Your task to perform on an android device: change timer sound Image 0: 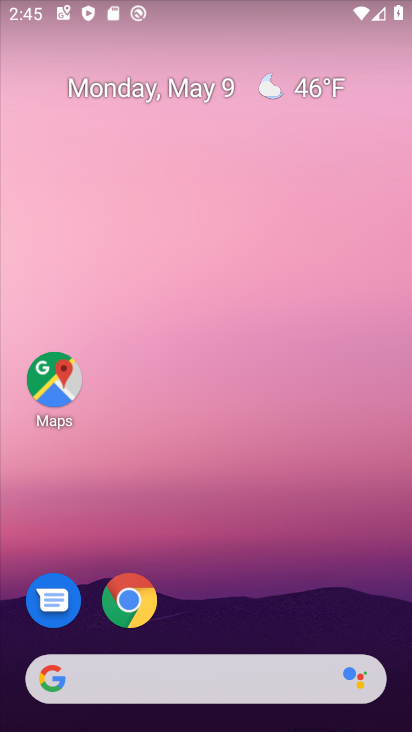
Step 0: drag from (227, 654) to (308, 137)
Your task to perform on an android device: change timer sound Image 1: 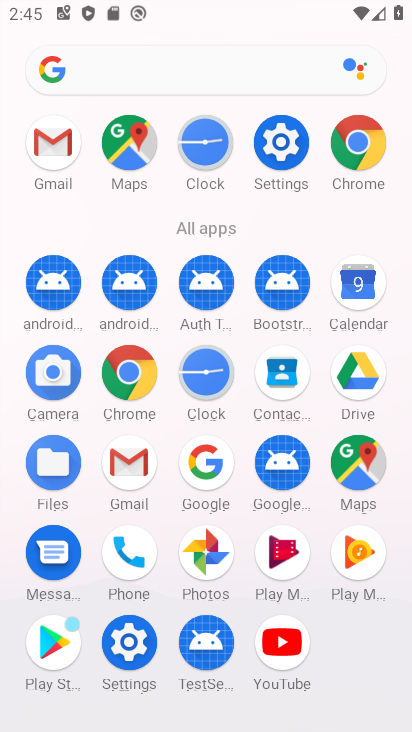
Step 1: click (205, 365)
Your task to perform on an android device: change timer sound Image 2: 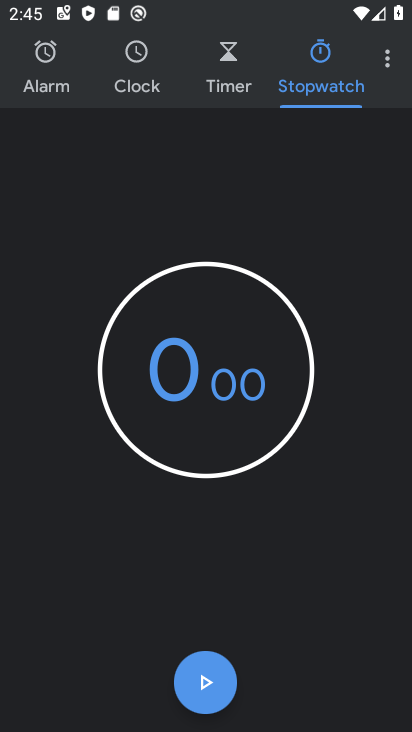
Step 2: click (386, 54)
Your task to perform on an android device: change timer sound Image 3: 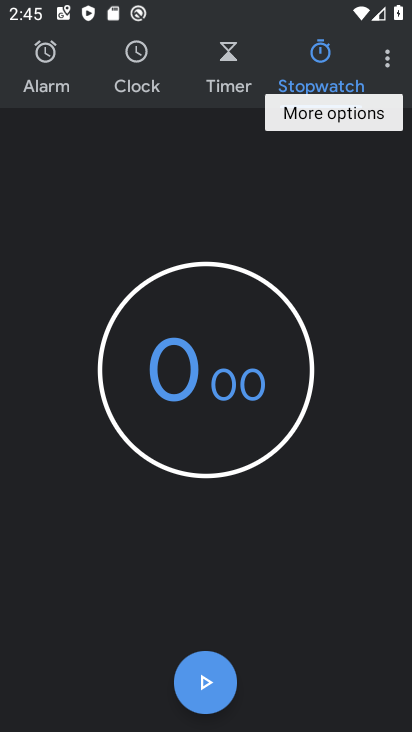
Step 3: click (388, 59)
Your task to perform on an android device: change timer sound Image 4: 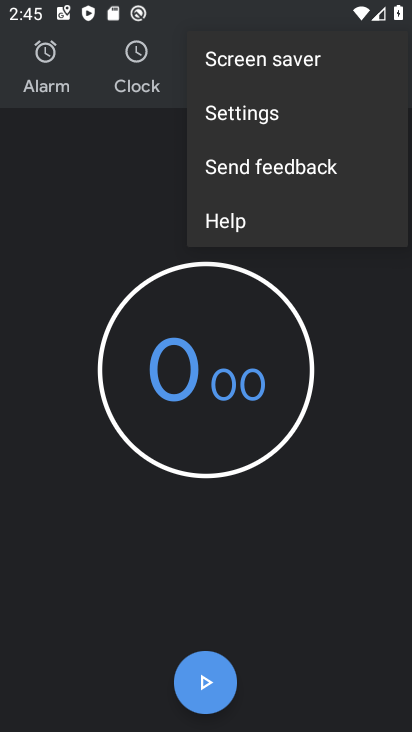
Step 4: click (293, 118)
Your task to perform on an android device: change timer sound Image 5: 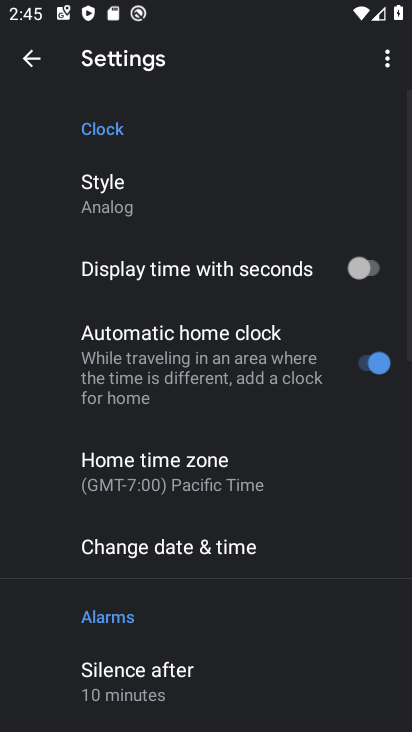
Step 5: drag from (184, 682) to (287, 68)
Your task to perform on an android device: change timer sound Image 6: 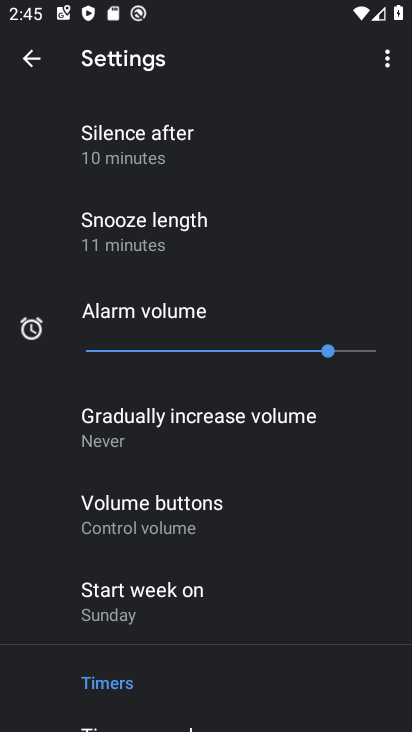
Step 6: drag from (195, 646) to (347, 157)
Your task to perform on an android device: change timer sound Image 7: 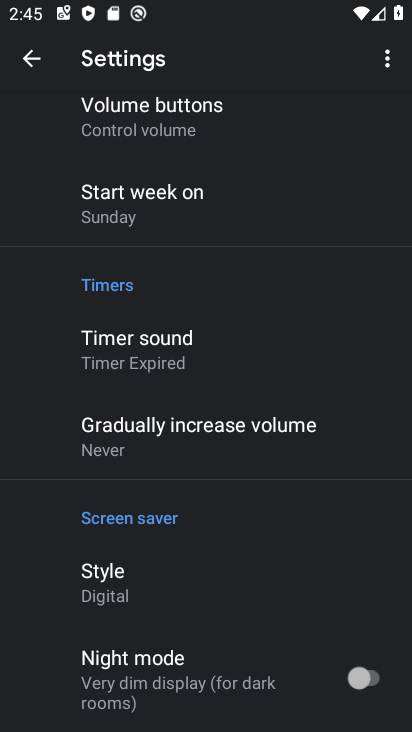
Step 7: click (121, 351)
Your task to perform on an android device: change timer sound Image 8: 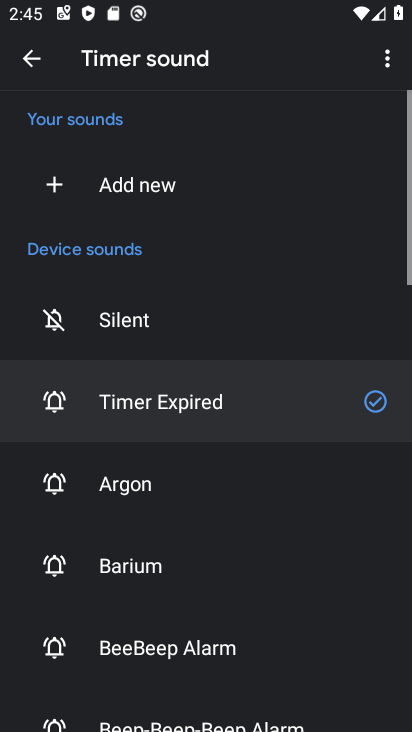
Step 8: click (143, 492)
Your task to perform on an android device: change timer sound Image 9: 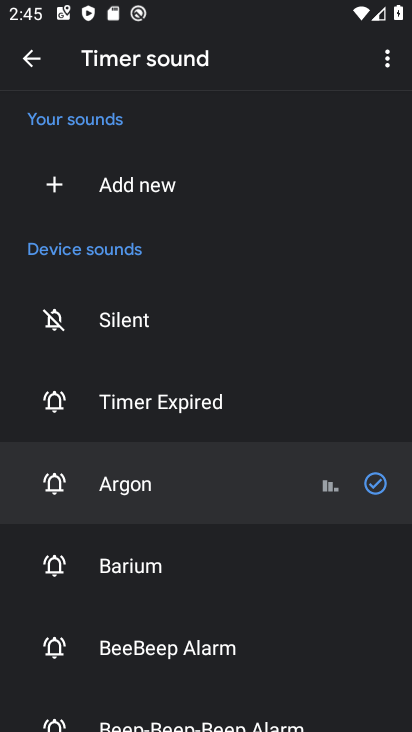
Step 9: task complete